Your task to perform on an android device: Open ESPN.com Image 0: 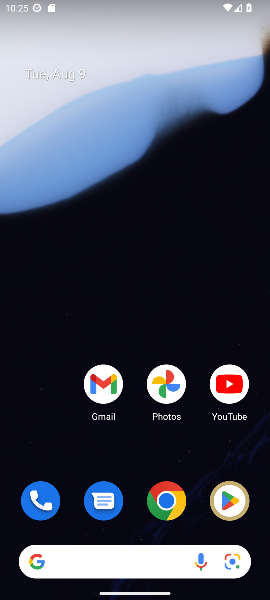
Step 0: click (167, 498)
Your task to perform on an android device: Open ESPN.com Image 1: 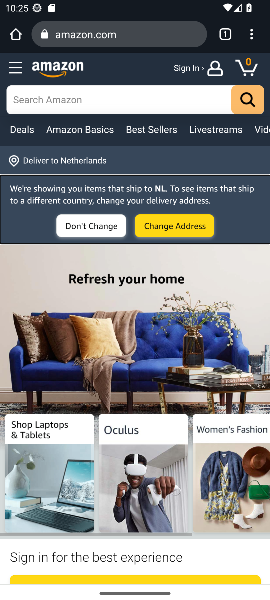
Step 1: click (70, 39)
Your task to perform on an android device: Open ESPN.com Image 2: 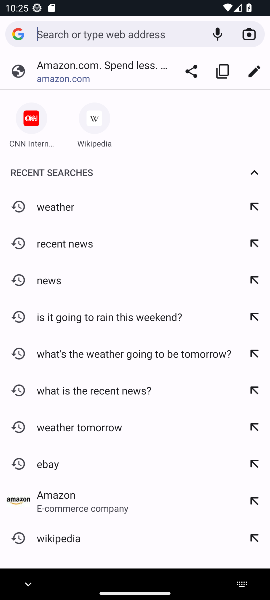
Step 2: type "www.espn.com"
Your task to perform on an android device: Open ESPN.com Image 3: 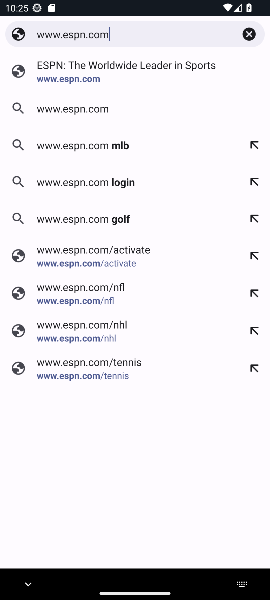
Step 3: click (58, 73)
Your task to perform on an android device: Open ESPN.com Image 4: 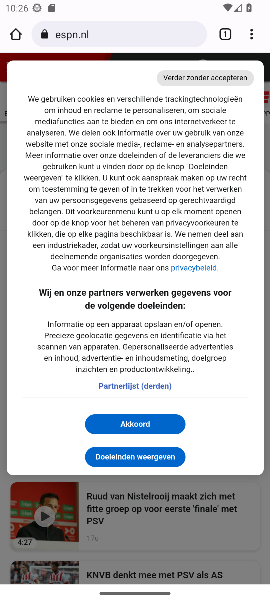
Step 4: task complete